Your task to perform on an android device: turn on sleep mode Image 0: 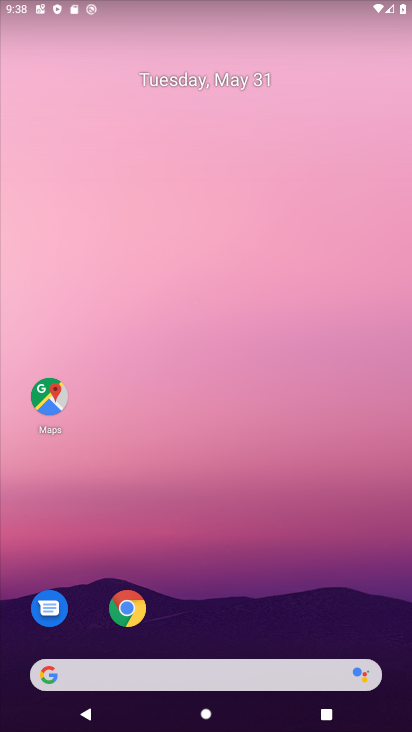
Step 0: task complete